Your task to perform on an android device: turn vacation reply on in the gmail app Image 0: 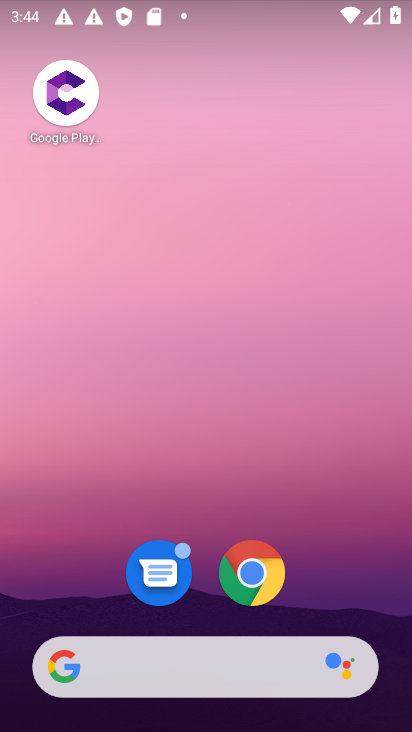
Step 0: drag from (372, 558) to (346, 2)
Your task to perform on an android device: turn vacation reply on in the gmail app Image 1: 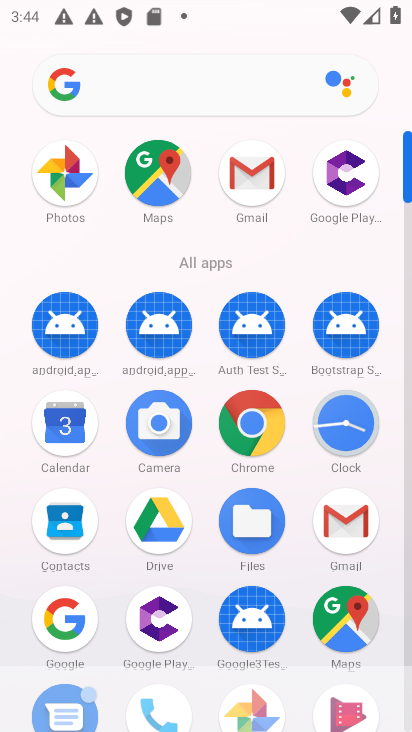
Step 1: click (254, 169)
Your task to perform on an android device: turn vacation reply on in the gmail app Image 2: 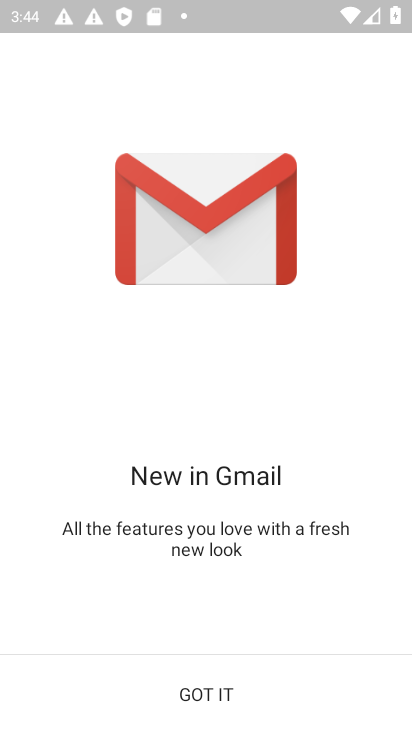
Step 2: click (258, 666)
Your task to perform on an android device: turn vacation reply on in the gmail app Image 3: 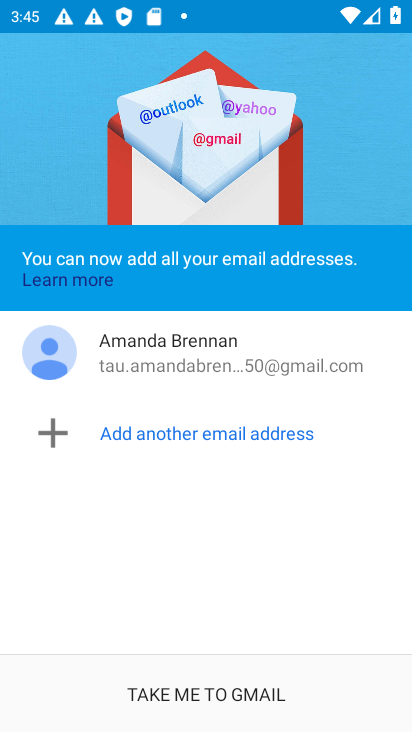
Step 3: click (202, 697)
Your task to perform on an android device: turn vacation reply on in the gmail app Image 4: 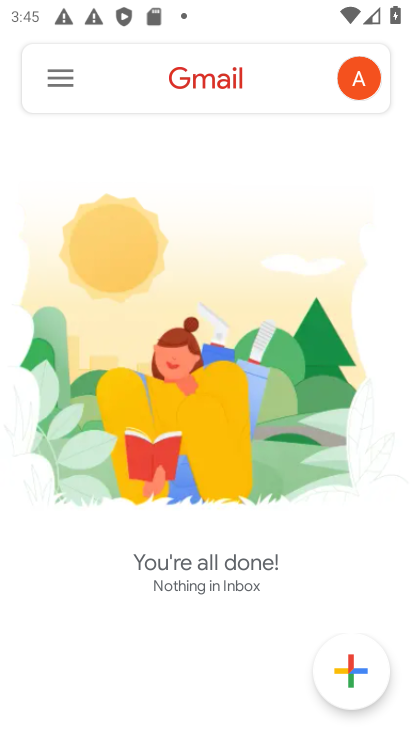
Step 4: click (56, 64)
Your task to perform on an android device: turn vacation reply on in the gmail app Image 5: 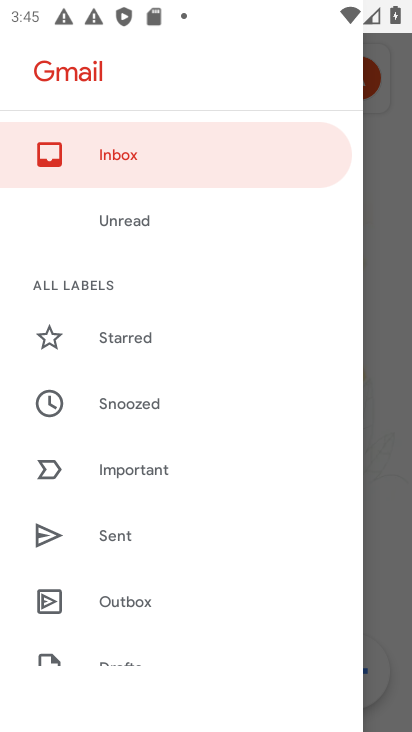
Step 5: drag from (96, 292) to (60, 127)
Your task to perform on an android device: turn vacation reply on in the gmail app Image 6: 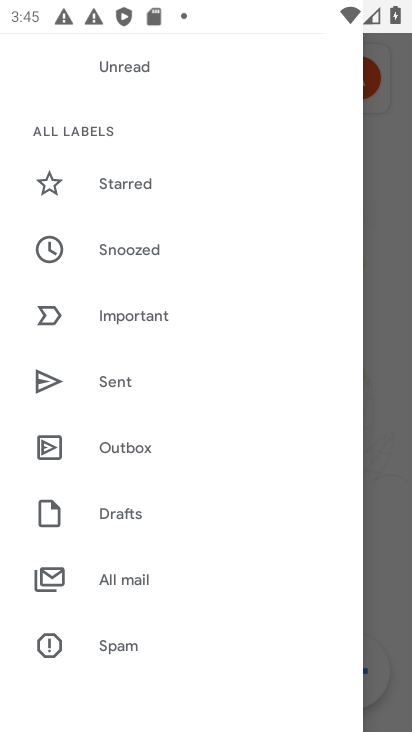
Step 6: drag from (259, 678) to (222, 259)
Your task to perform on an android device: turn vacation reply on in the gmail app Image 7: 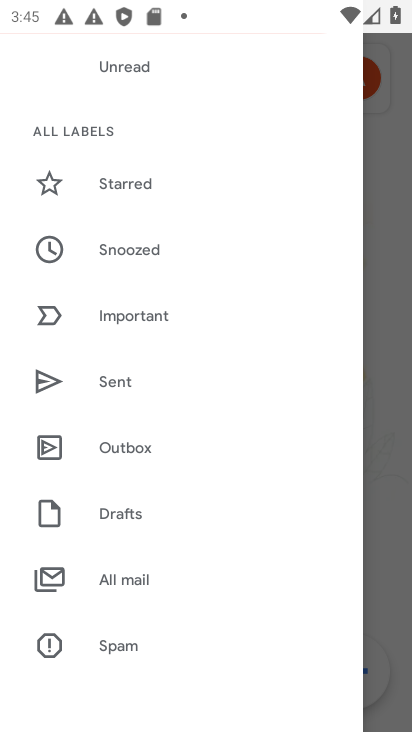
Step 7: drag from (160, 151) to (177, 40)
Your task to perform on an android device: turn vacation reply on in the gmail app Image 8: 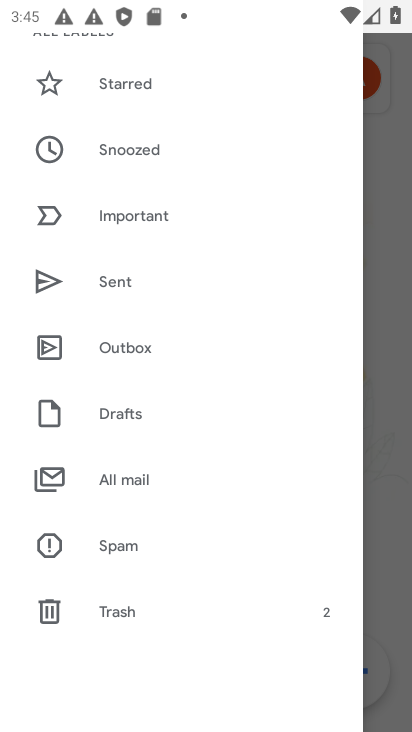
Step 8: drag from (167, 664) to (211, 272)
Your task to perform on an android device: turn vacation reply on in the gmail app Image 9: 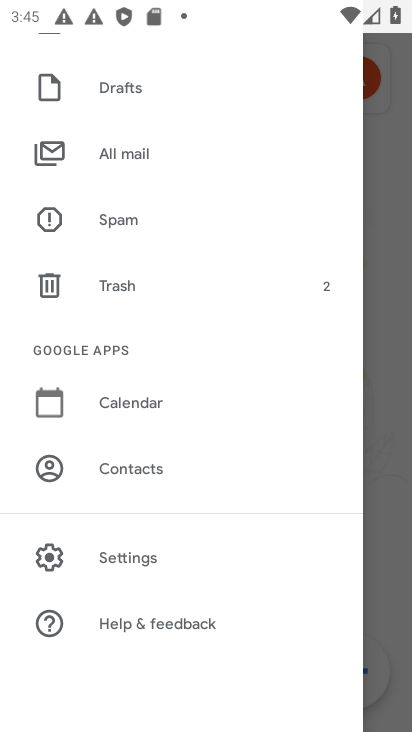
Step 9: click (137, 556)
Your task to perform on an android device: turn vacation reply on in the gmail app Image 10: 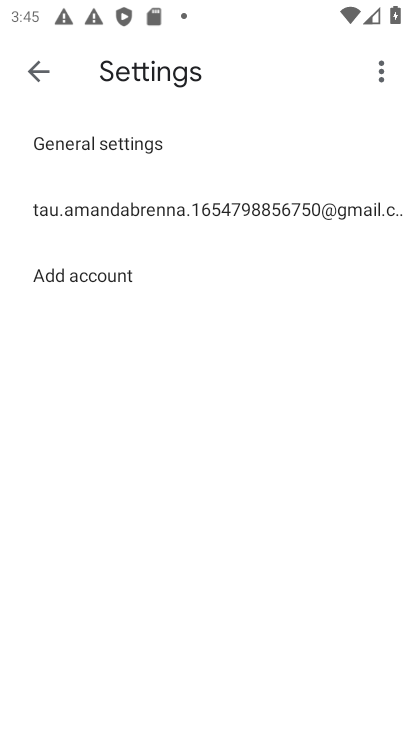
Step 10: click (106, 211)
Your task to perform on an android device: turn vacation reply on in the gmail app Image 11: 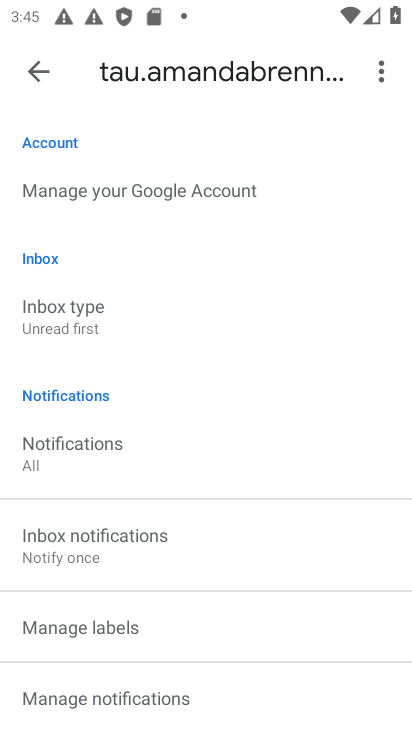
Step 11: task complete